Your task to perform on an android device: change notification settings in the gmail app Image 0: 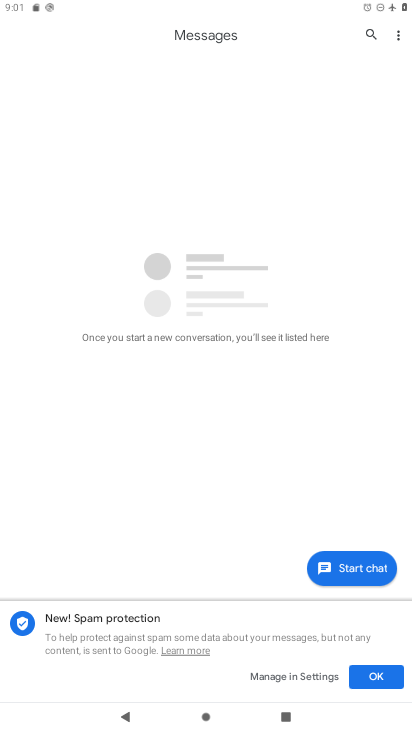
Step 0: press home button
Your task to perform on an android device: change notification settings in the gmail app Image 1: 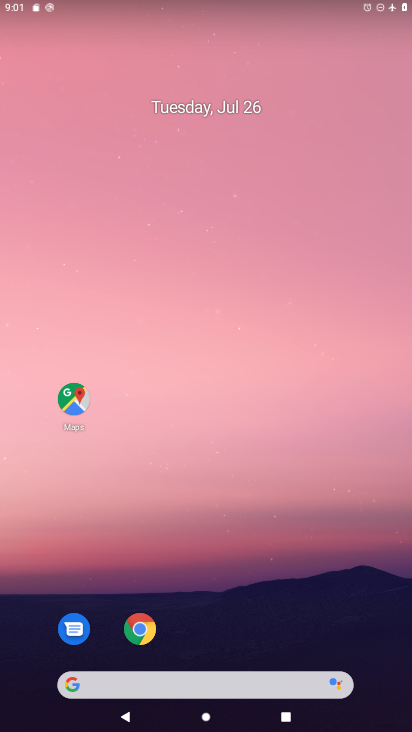
Step 1: drag from (189, 661) to (123, 56)
Your task to perform on an android device: change notification settings in the gmail app Image 2: 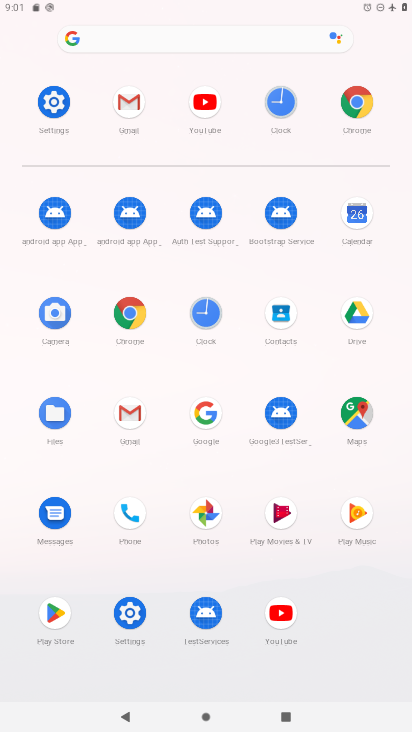
Step 2: click (138, 415)
Your task to perform on an android device: change notification settings in the gmail app Image 3: 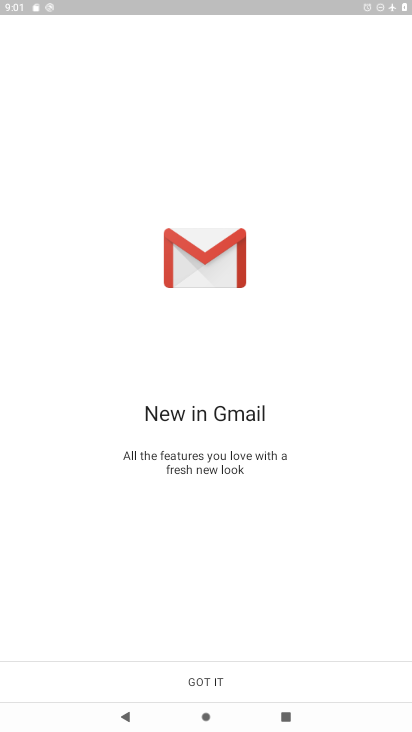
Step 3: click (333, 676)
Your task to perform on an android device: change notification settings in the gmail app Image 4: 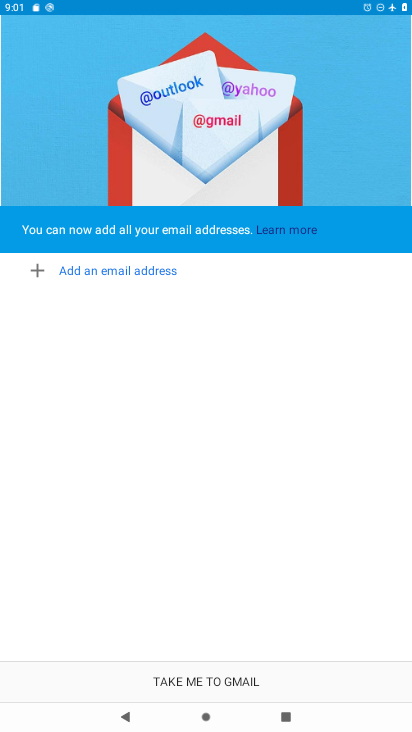
Step 4: task complete